Your task to perform on an android device: Go to location settings Image 0: 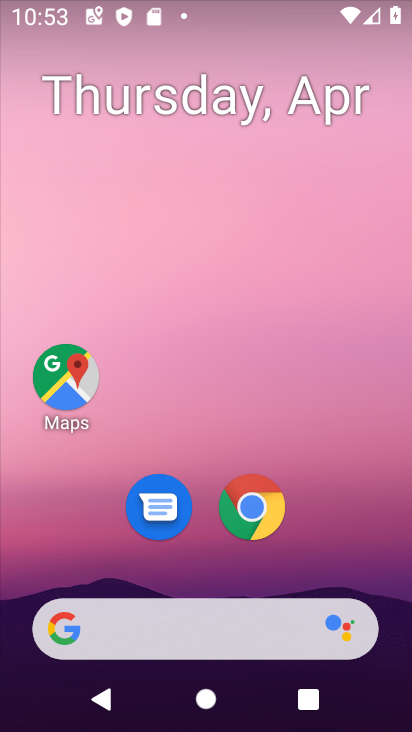
Step 0: drag from (155, 479) to (229, 93)
Your task to perform on an android device: Go to location settings Image 1: 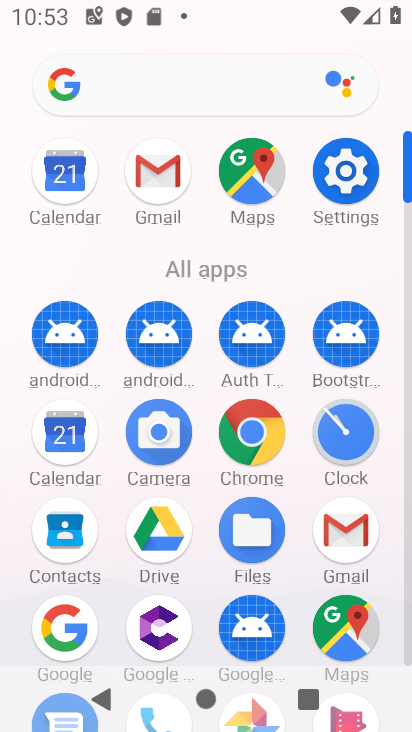
Step 1: click (356, 168)
Your task to perform on an android device: Go to location settings Image 2: 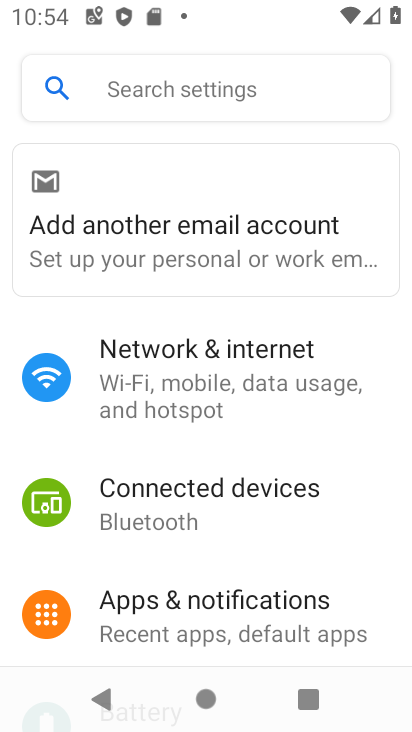
Step 2: drag from (186, 578) to (320, 68)
Your task to perform on an android device: Go to location settings Image 3: 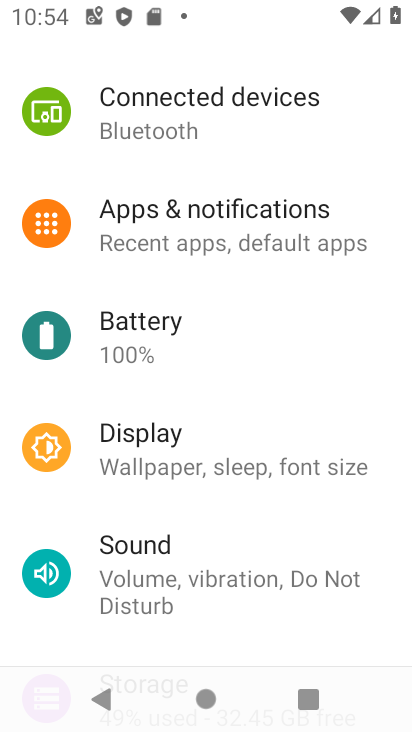
Step 3: drag from (150, 584) to (304, 148)
Your task to perform on an android device: Go to location settings Image 4: 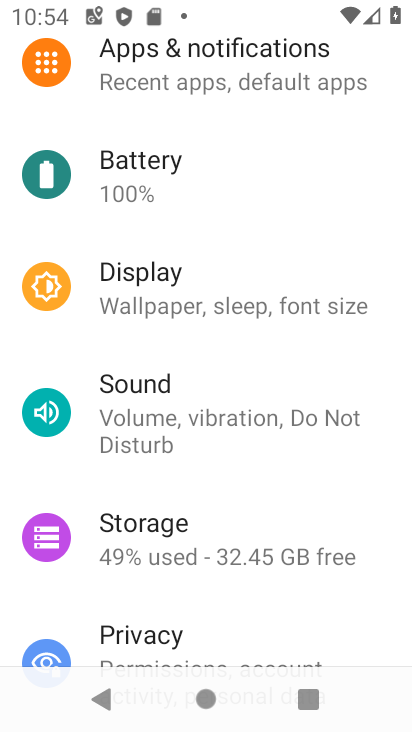
Step 4: drag from (143, 578) to (261, 204)
Your task to perform on an android device: Go to location settings Image 5: 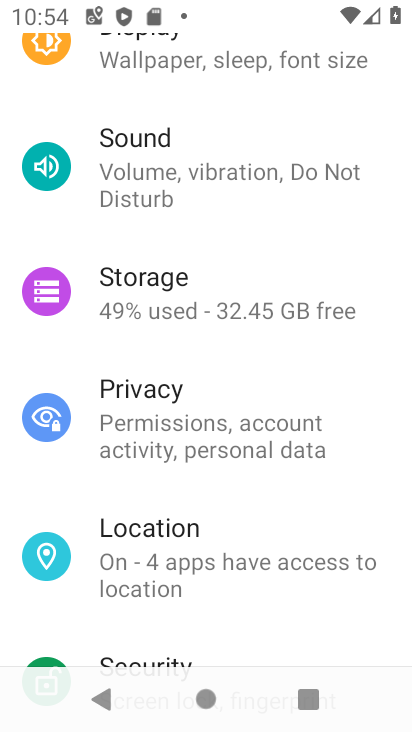
Step 5: click (161, 549)
Your task to perform on an android device: Go to location settings Image 6: 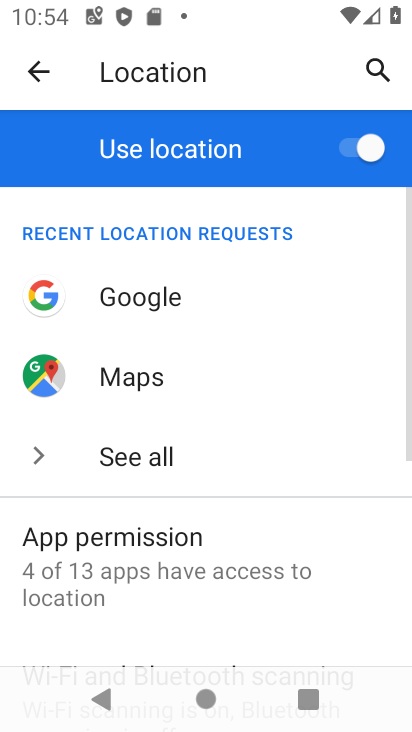
Step 6: task complete